Your task to perform on an android device: Go to CNN.com Image 0: 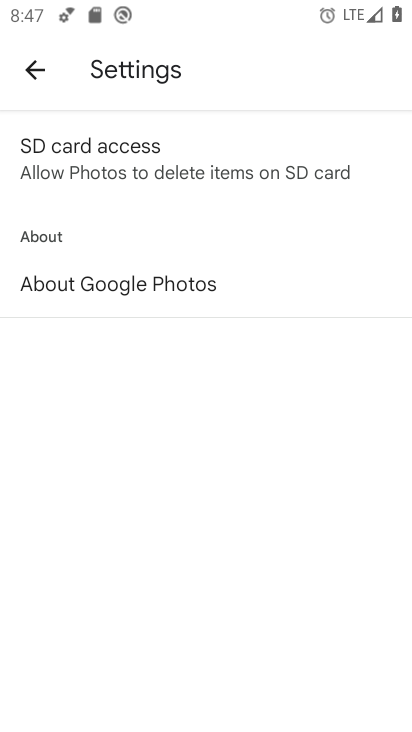
Step 0: press home button
Your task to perform on an android device: Go to CNN.com Image 1: 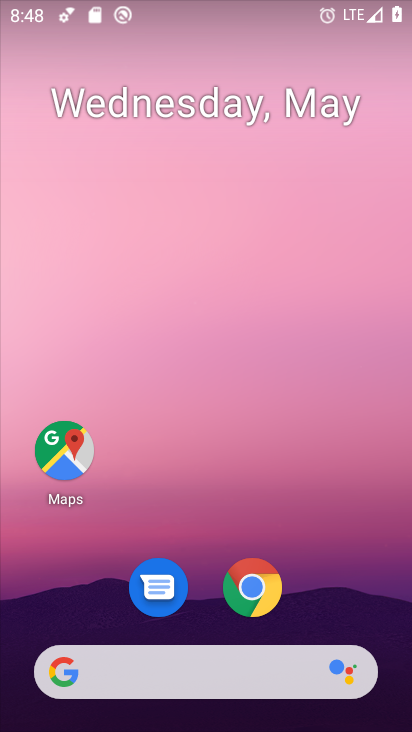
Step 1: click (243, 586)
Your task to perform on an android device: Go to CNN.com Image 2: 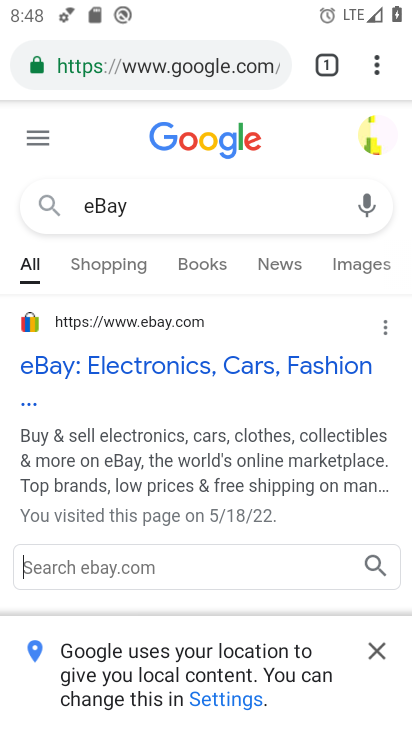
Step 2: click (169, 58)
Your task to perform on an android device: Go to CNN.com Image 3: 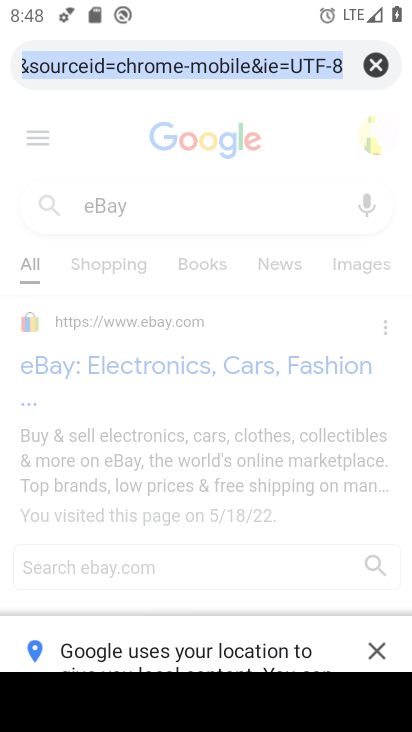
Step 3: type "CNN.com"
Your task to perform on an android device: Go to CNN.com Image 4: 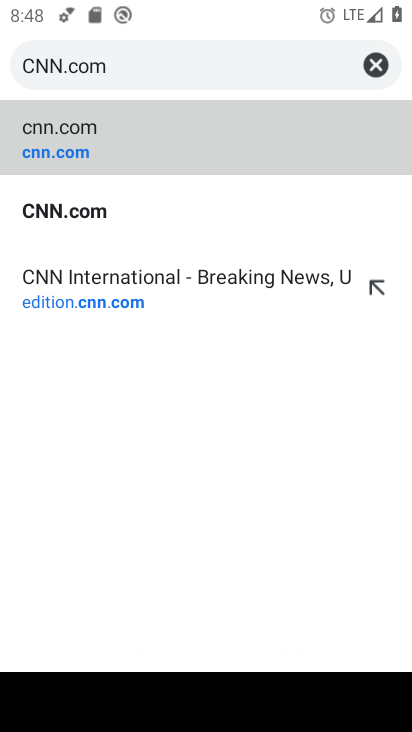
Step 4: click (148, 202)
Your task to perform on an android device: Go to CNN.com Image 5: 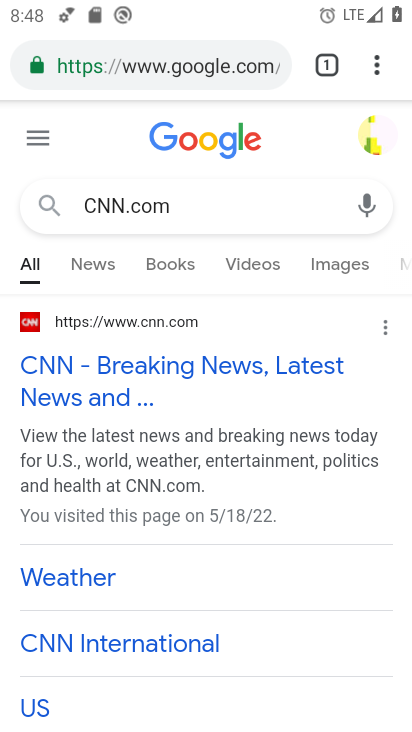
Step 5: task complete